Your task to perform on an android device: open sync settings in chrome Image 0: 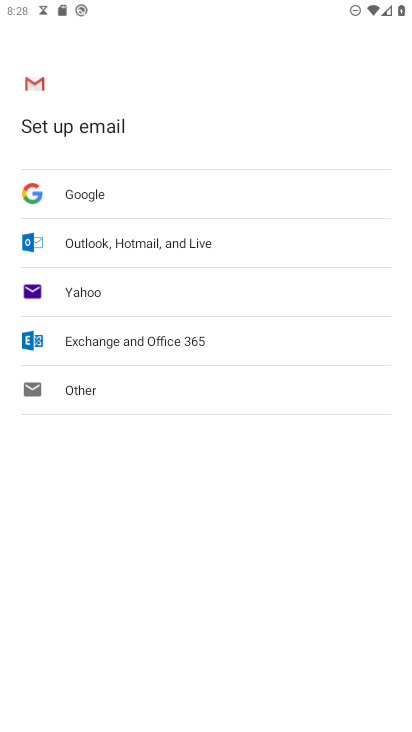
Step 0: press home button
Your task to perform on an android device: open sync settings in chrome Image 1: 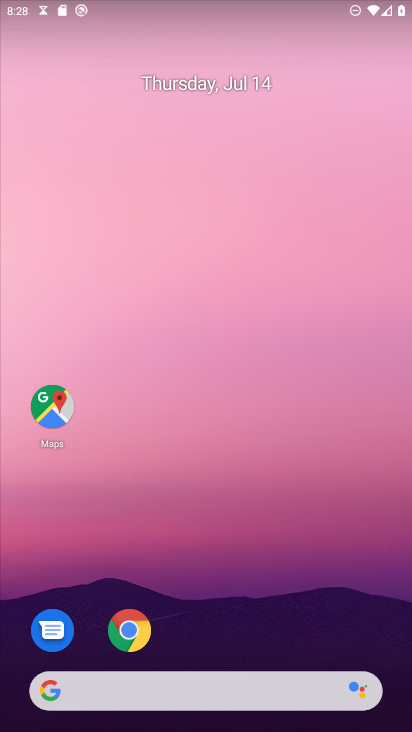
Step 1: click (122, 626)
Your task to perform on an android device: open sync settings in chrome Image 2: 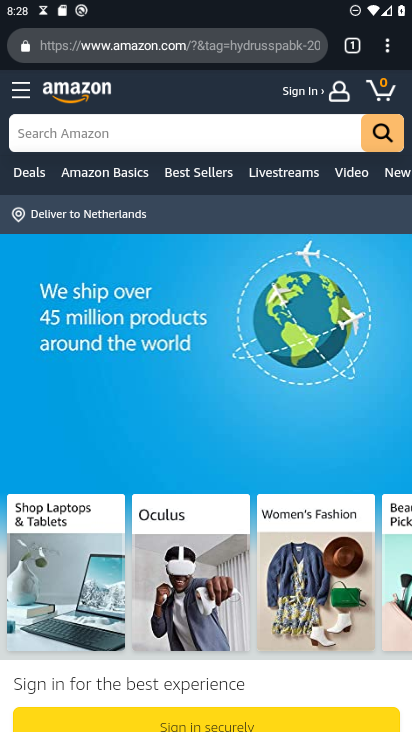
Step 2: click (384, 45)
Your task to perform on an android device: open sync settings in chrome Image 3: 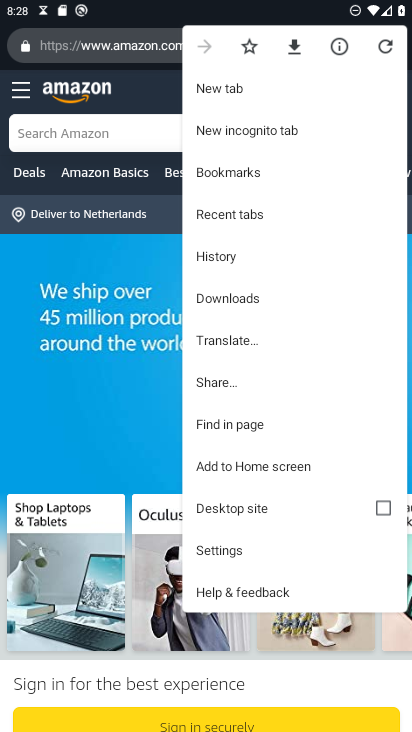
Step 3: click (255, 553)
Your task to perform on an android device: open sync settings in chrome Image 4: 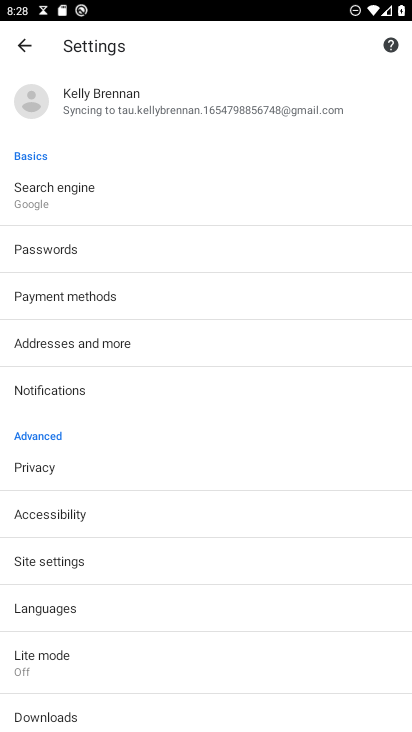
Step 4: click (167, 110)
Your task to perform on an android device: open sync settings in chrome Image 5: 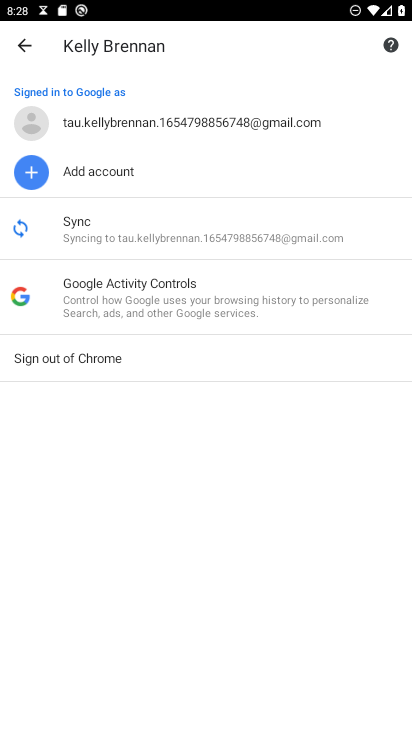
Step 5: click (99, 247)
Your task to perform on an android device: open sync settings in chrome Image 6: 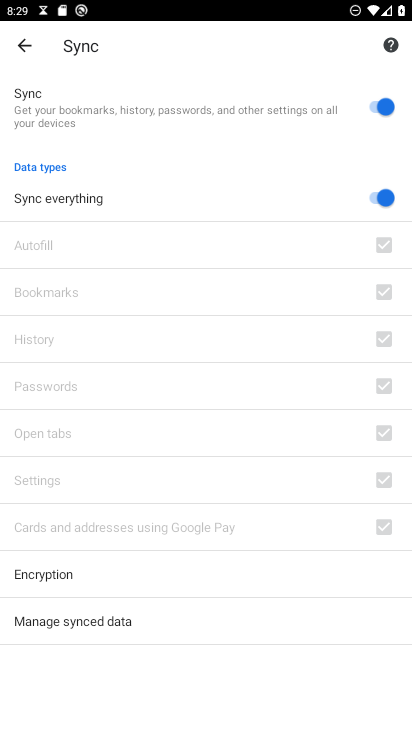
Step 6: task complete